Your task to perform on an android device: toggle location history Image 0: 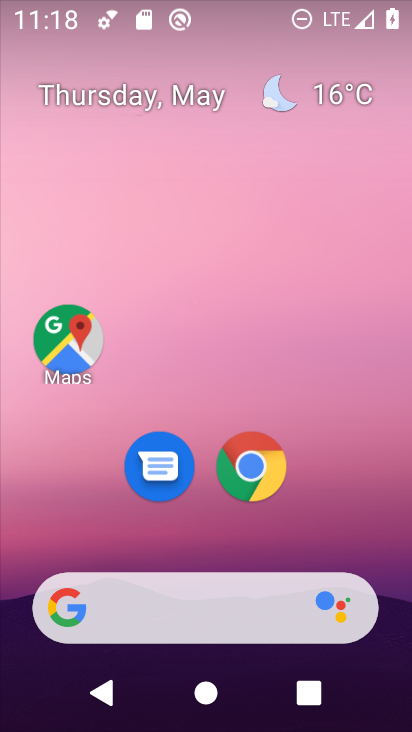
Step 0: drag from (320, 528) to (305, 225)
Your task to perform on an android device: toggle location history Image 1: 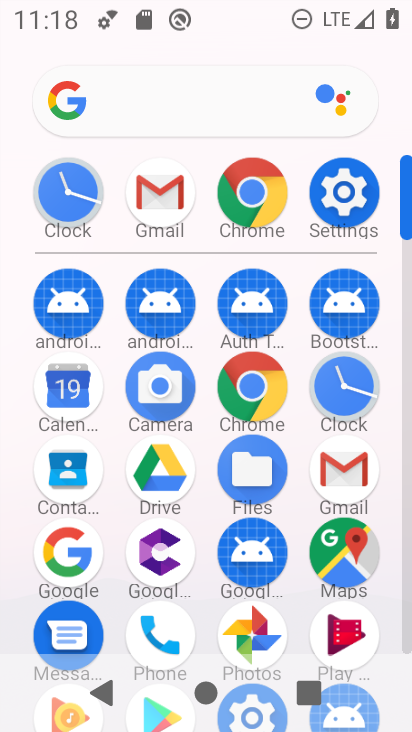
Step 1: click (346, 184)
Your task to perform on an android device: toggle location history Image 2: 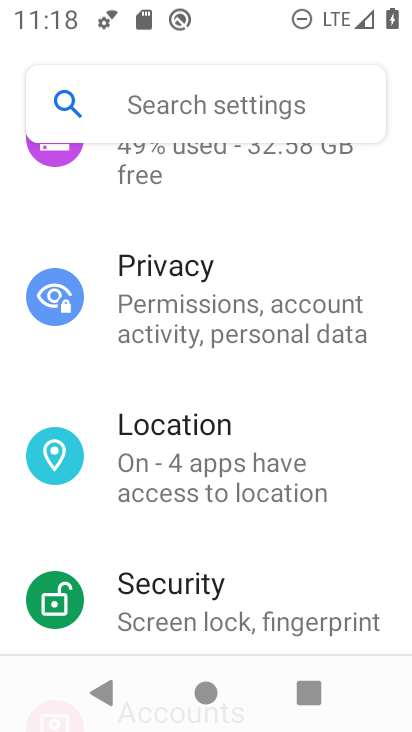
Step 2: click (256, 455)
Your task to perform on an android device: toggle location history Image 3: 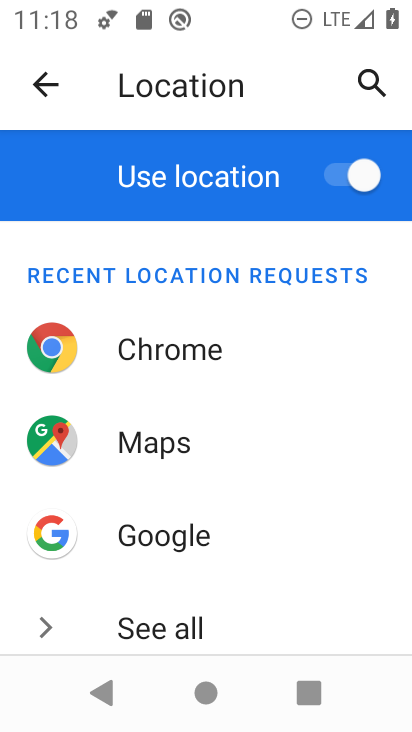
Step 3: drag from (289, 625) to (288, 218)
Your task to perform on an android device: toggle location history Image 4: 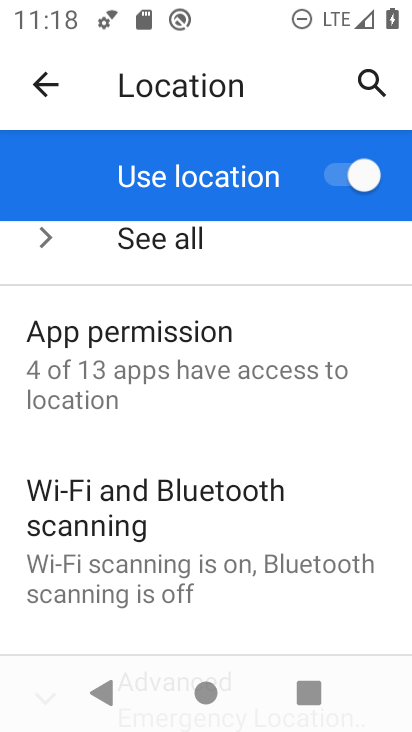
Step 4: drag from (354, 596) to (313, 256)
Your task to perform on an android device: toggle location history Image 5: 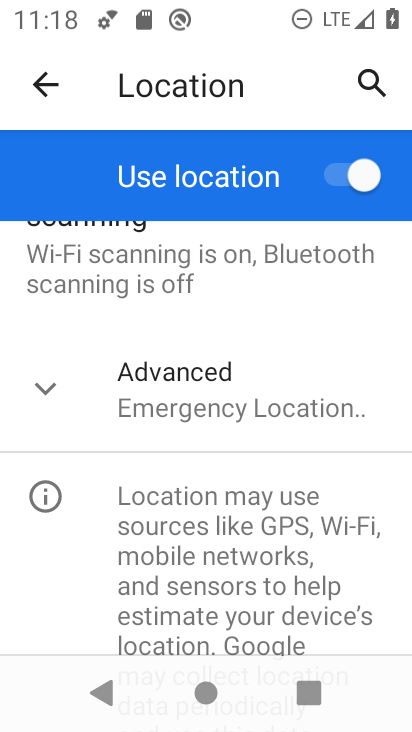
Step 5: click (303, 382)
Your task to perform on an android device: toggle location history Image 6: 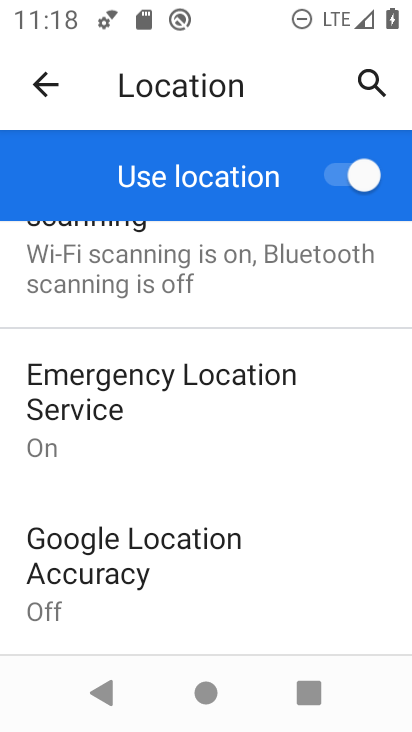
Step 6: drag from (222, 576) to (231, 193)
Your task to perform on an android device: toggle location history Image 7: 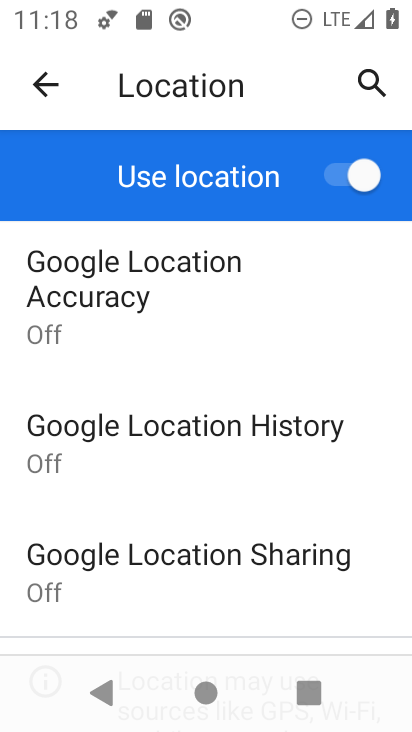
Step 7: click (193, 467)
Your task to perform on an android device: toggle location history Image 8: 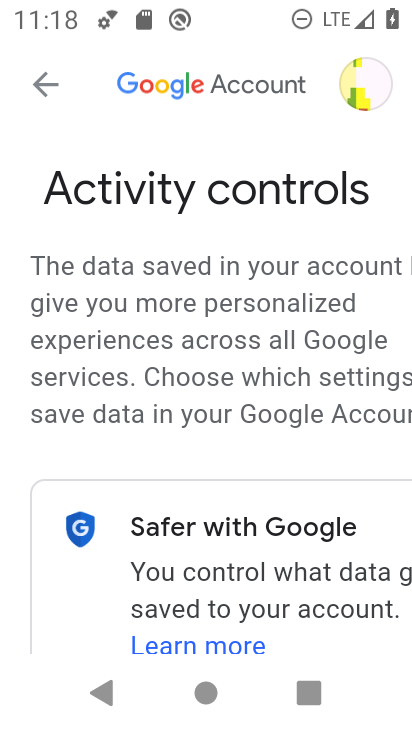
Step 8: drag from (287, 563) to (287, 187)
Your task to perform on an android device: toggle location history Image 9: 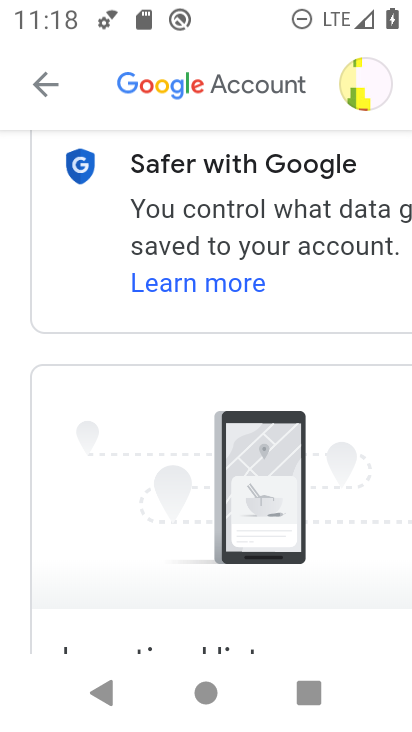
Step 9: drag from (322, 361) to (319, 154)
Your task to perform on an android device: toggle location history Image 10: 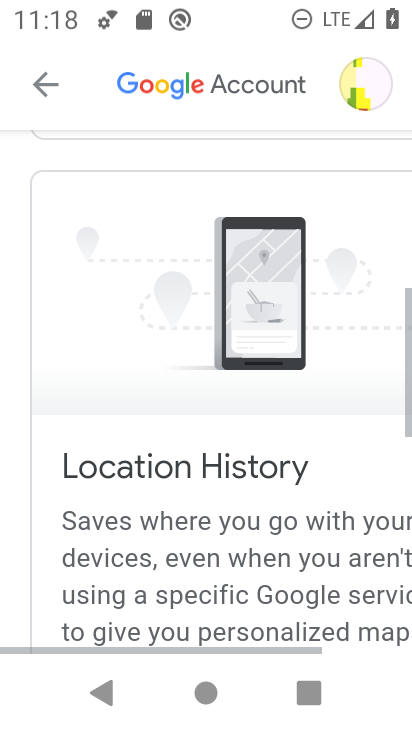
Step 10: drag from (364, 412) to (364, 250)
Your task to perform on an android device: toggle location history Image 11: 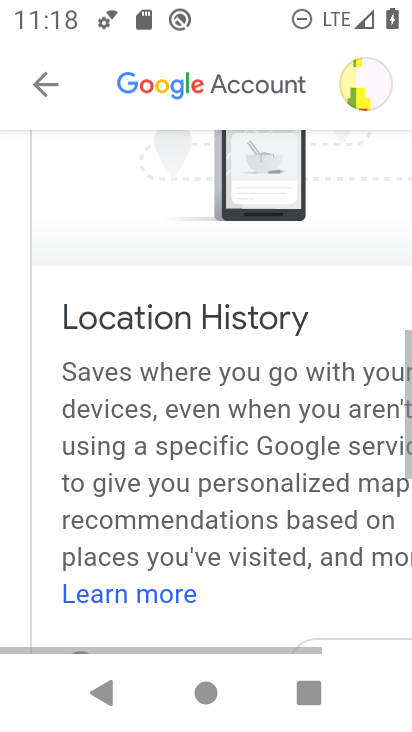
Step 11: drag from (334, 466) to (368, 214)
Your task to perform on an android device: toggle location history Image 12: 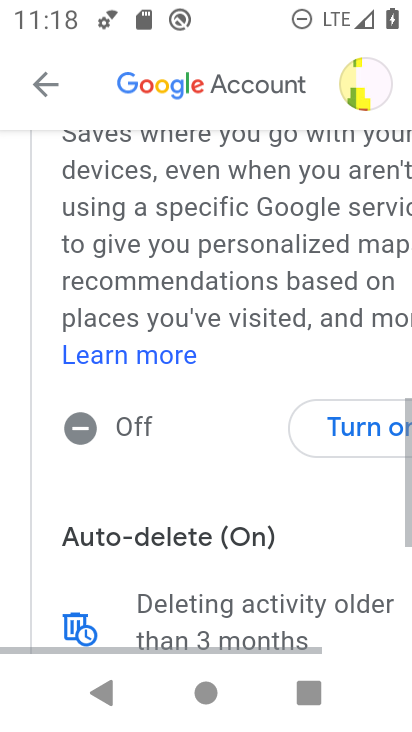
Step 12: drag from (389, 135) to (386, 94)
Your task to perform on an android device: toggle location history Image 13: 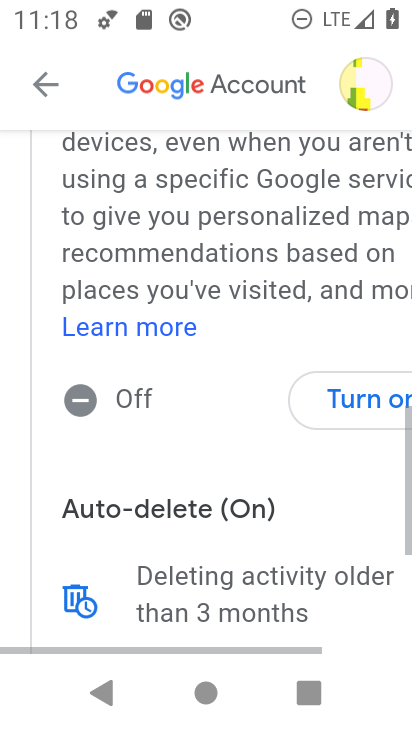
Step 13: click (349, 418)
Your task to perform on an android device: toggle location history Image 14: 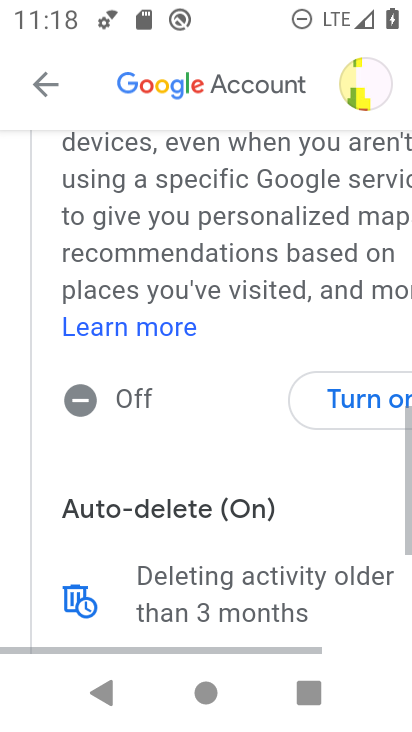
Step 14: click (349, 402)
Your task to perform on an android device: toggle location history Image 15: 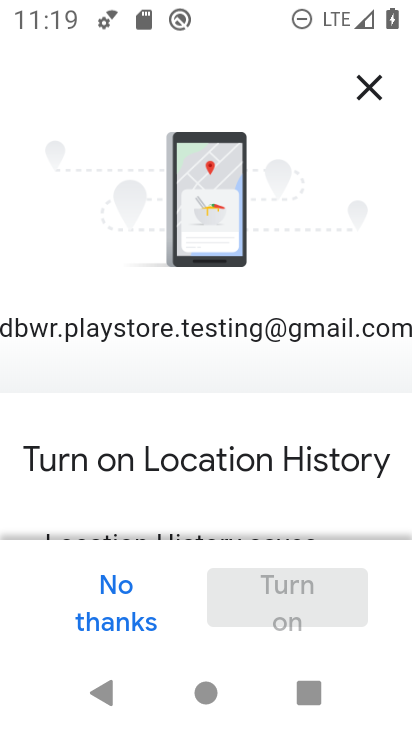
Step 15: task complete